Your task to perform on an android device: Open Yahoo.com Image 0: 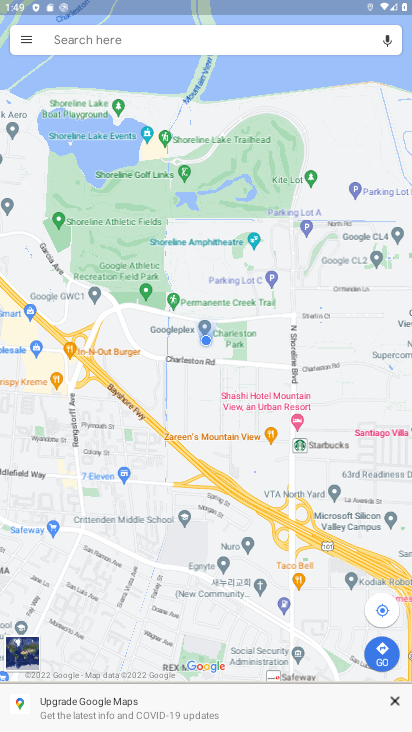
Step 0: press home button
Your task to perform on an android device: Open Yahoo.com Image 1: 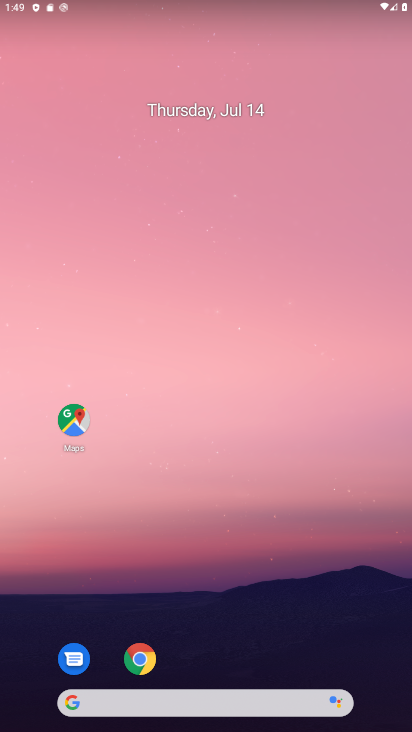
Step 1: drag from (198, 695) to (268, 172)
Your task to perform on an android device: Open Yahoo.com Image 2: 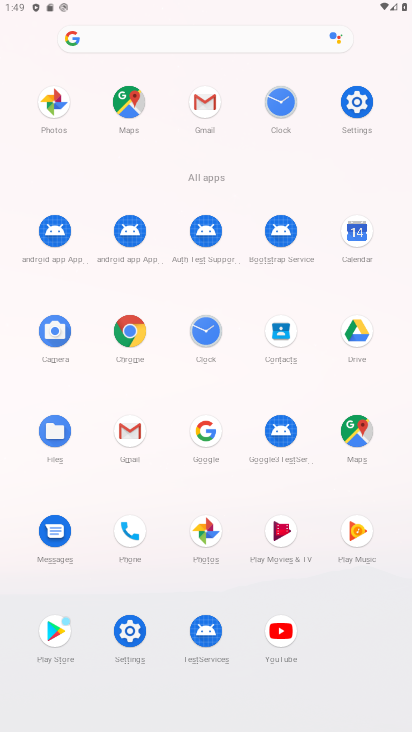
Step 2: click (125, 333)
Your task to perform on an android device: Open Yahoo.com Image 3: 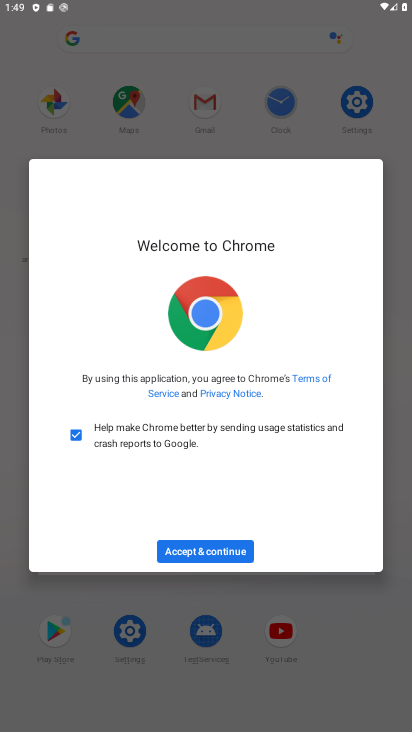
Step 3: click (194, 551)
Your task to perform on an android device: Open Yahoo.com Image 4: 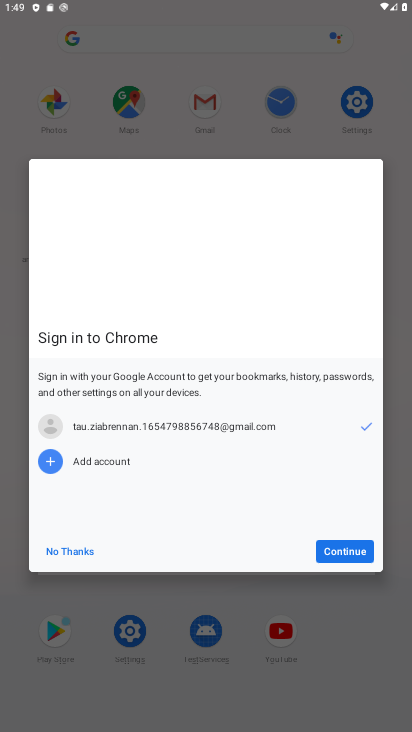
Step 4: click (339, 550)
Your task to perform on an android device: Open Yahoo.com Image 5: 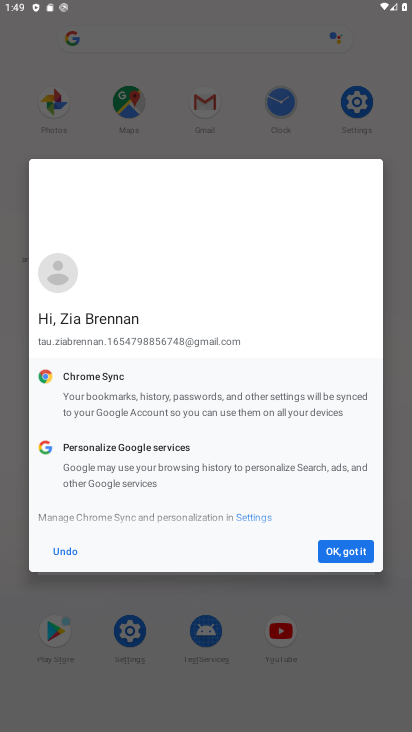
Step 5: click (333, 546)
Your task to perform on an android device: Open Yahoo.com Image 6: 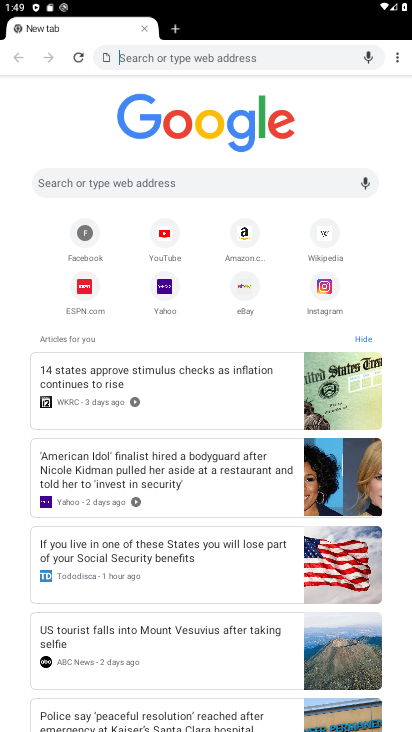
Step 6: click (166, 297)
Your task to perform on an android device: Open Yahoo.com Image 7: 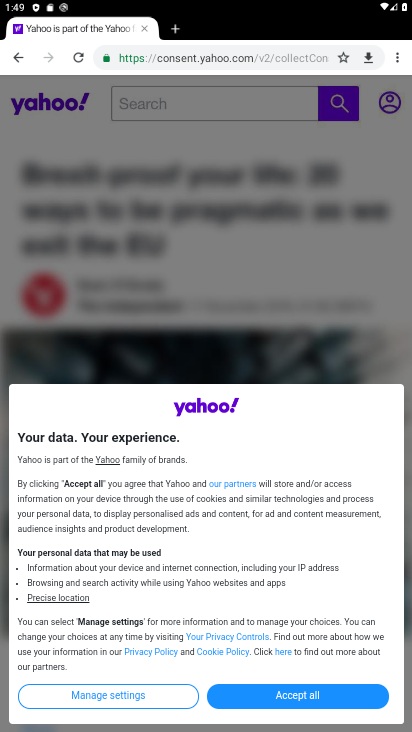
Step 7: click (272, 698)
Your task to perform on an android device: Open Yahoo.com Image 8: 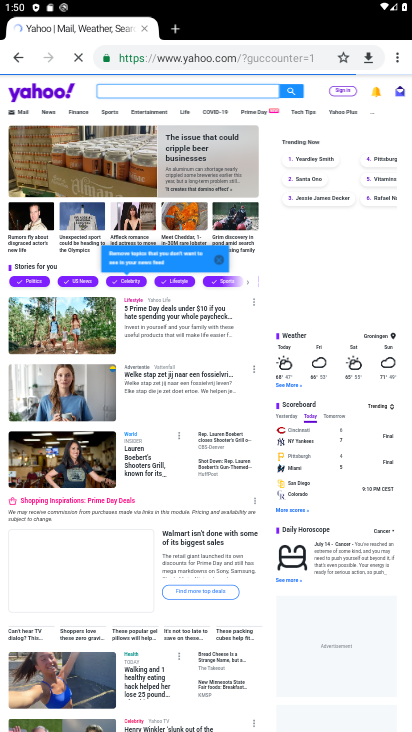
Step 8: task complete